Your task to perform on an android device: Search for "bose soundlink" on bestbuy.com, select the first entry, and add it to the cart. Image 0: 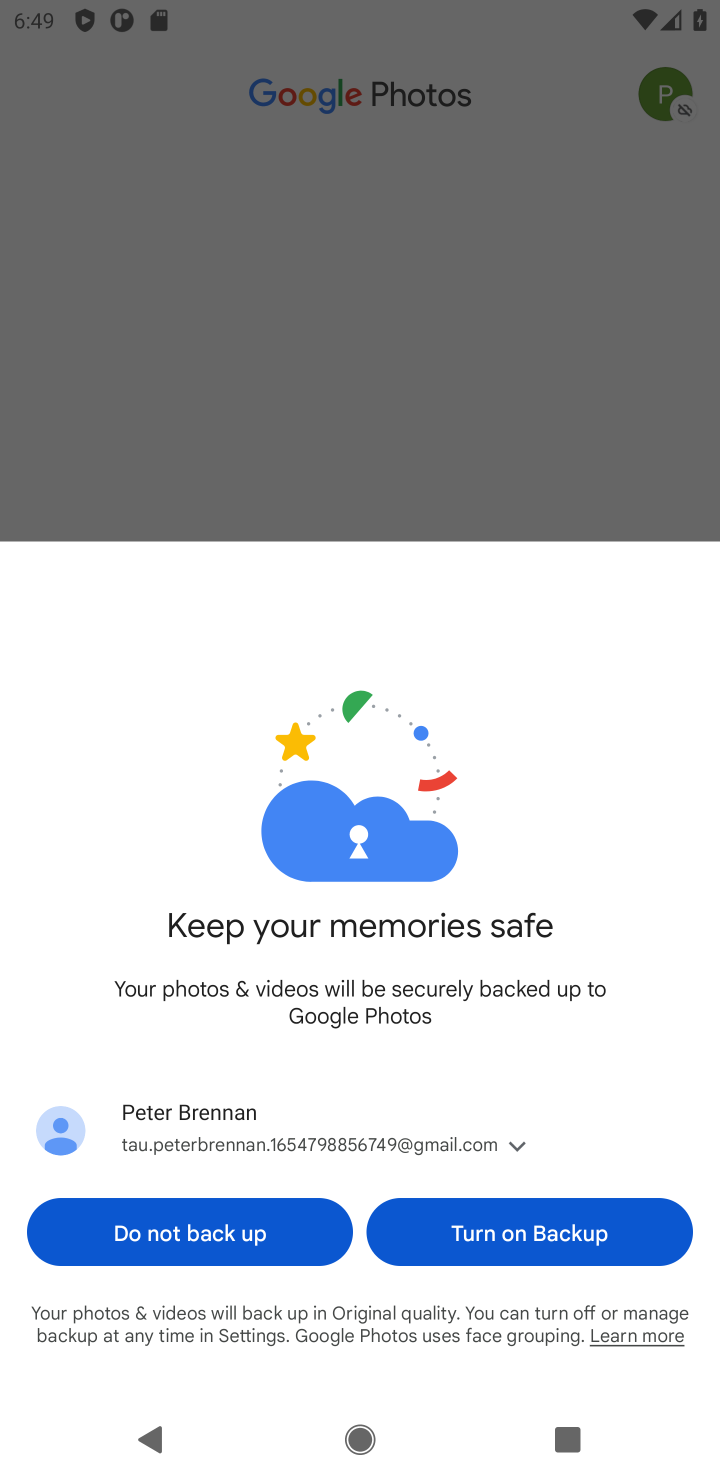
Step 0: press home button
Your task to perform on an android device: Search for "bose soundlink" on bestbuy.com, select the first entry, and add it to the cart. Image 1: 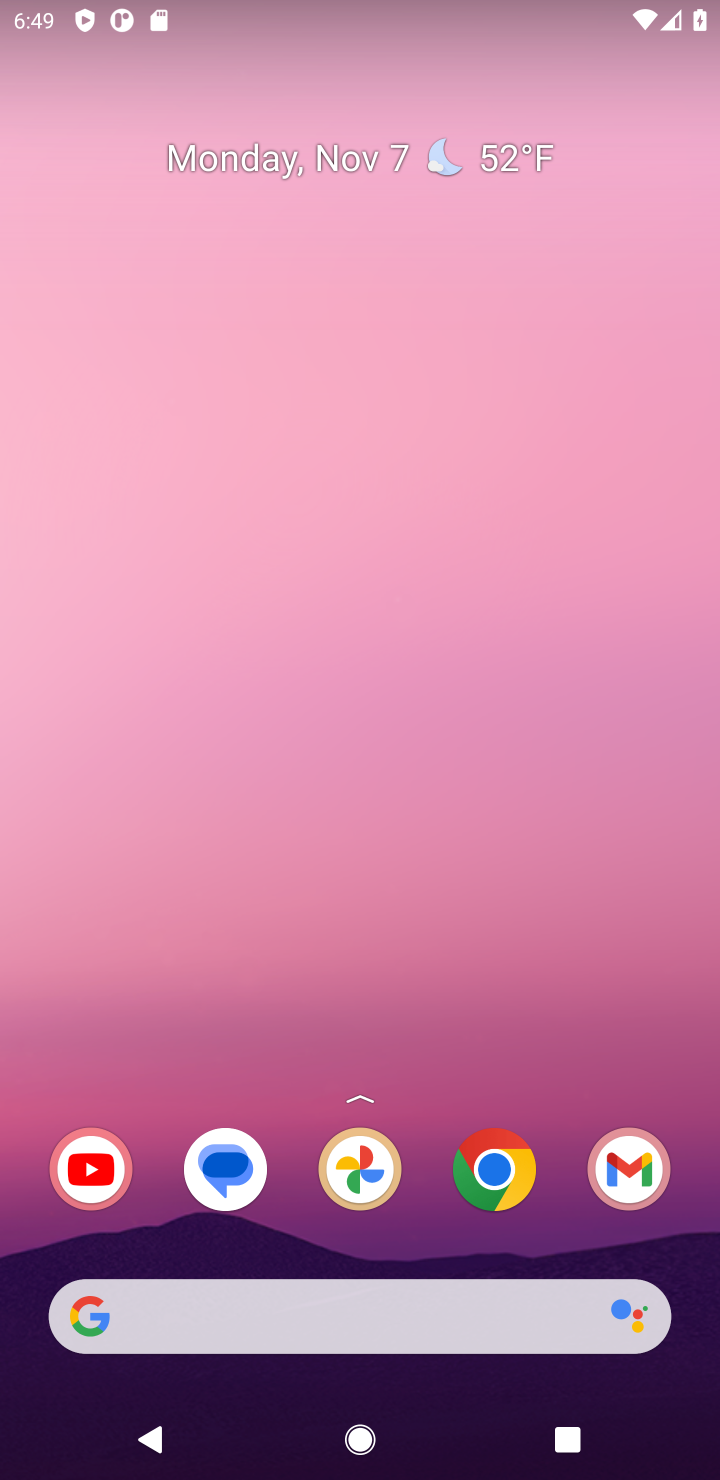
Step 1: click (482, 1191)
Your task to perform on an android device: Search for "bose soundlink" on bestbuy.com, select the first entry, and add it to the cart. Image 2: 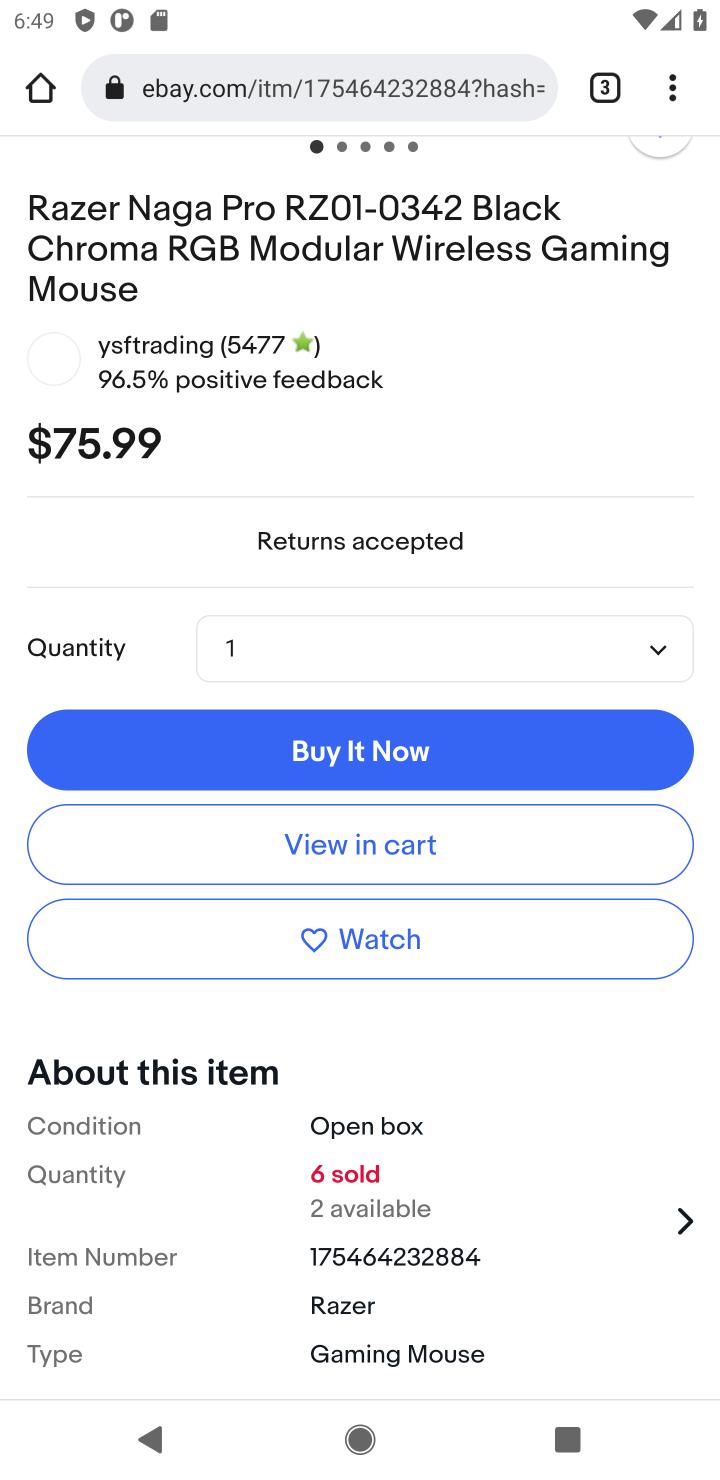
Step 2: click (601, 80)
Your task to perform on an android device: Search for "bose soundlink" on bestbuy.com, select the first entry, and add it to the cart. Image 3: 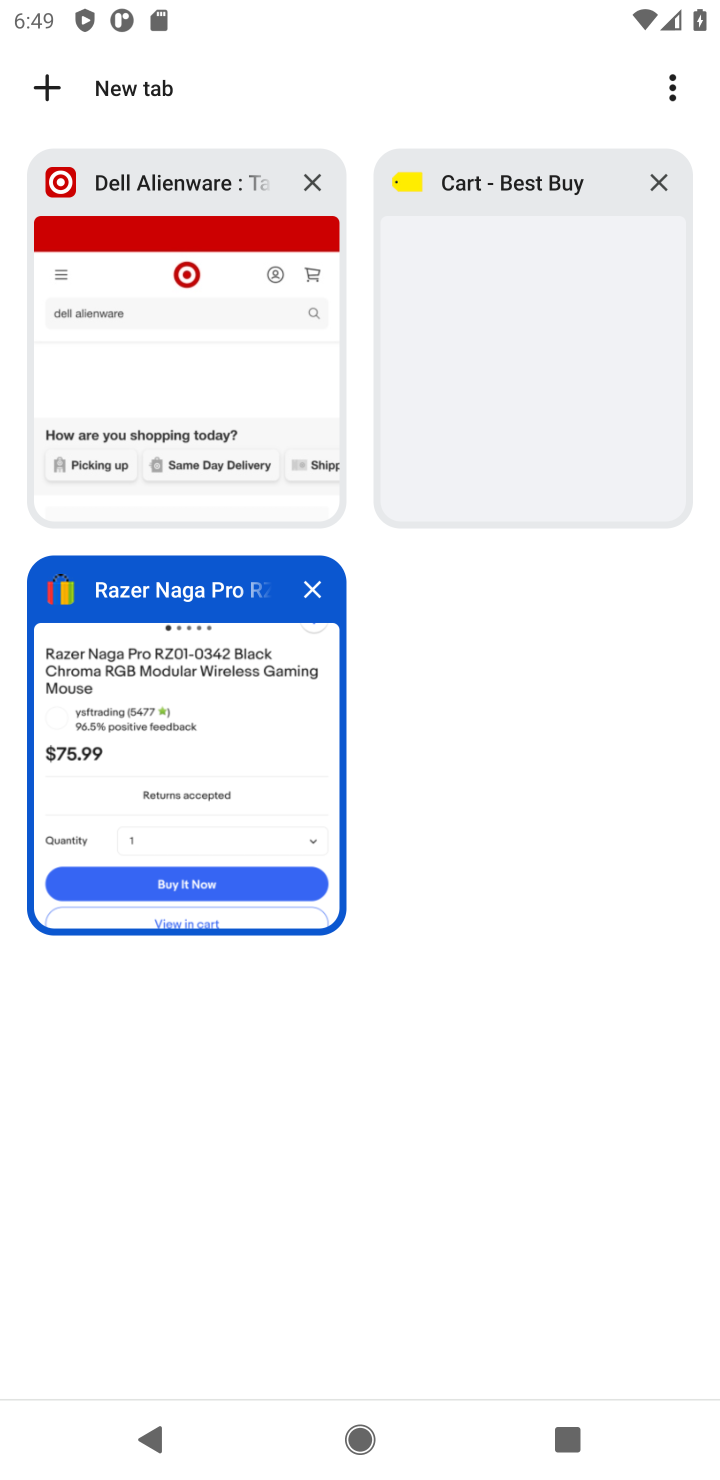
Step 3: click (529, 352)
Your task to perform on an android device: Search for "bose soundlink" on bestbuy.com, select the first entry, and add it to the cart. Image 4: 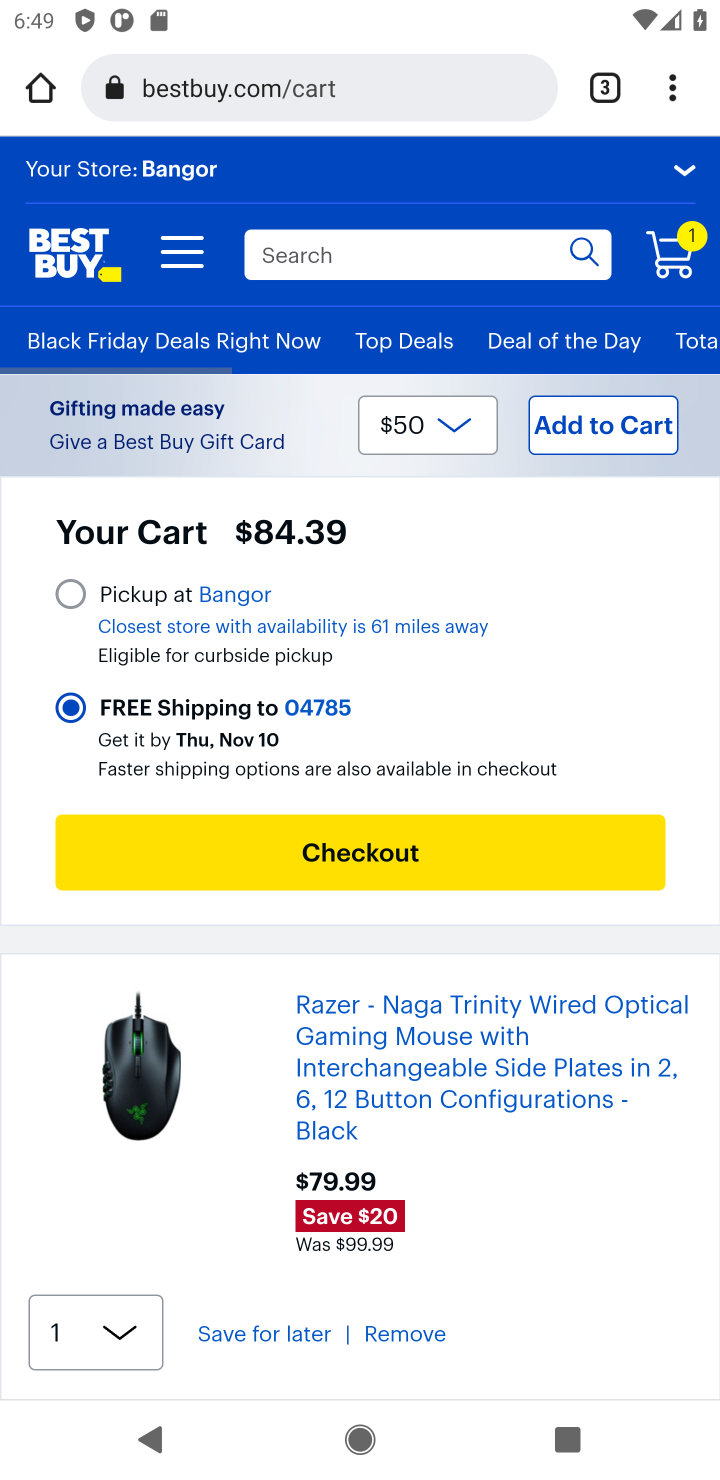
Step 4: click (341, 248)
Your task to perform on an android device: Search for "bose soundlink" on bestbuy.com, select the first entry, and add it to the cart. Image 5: 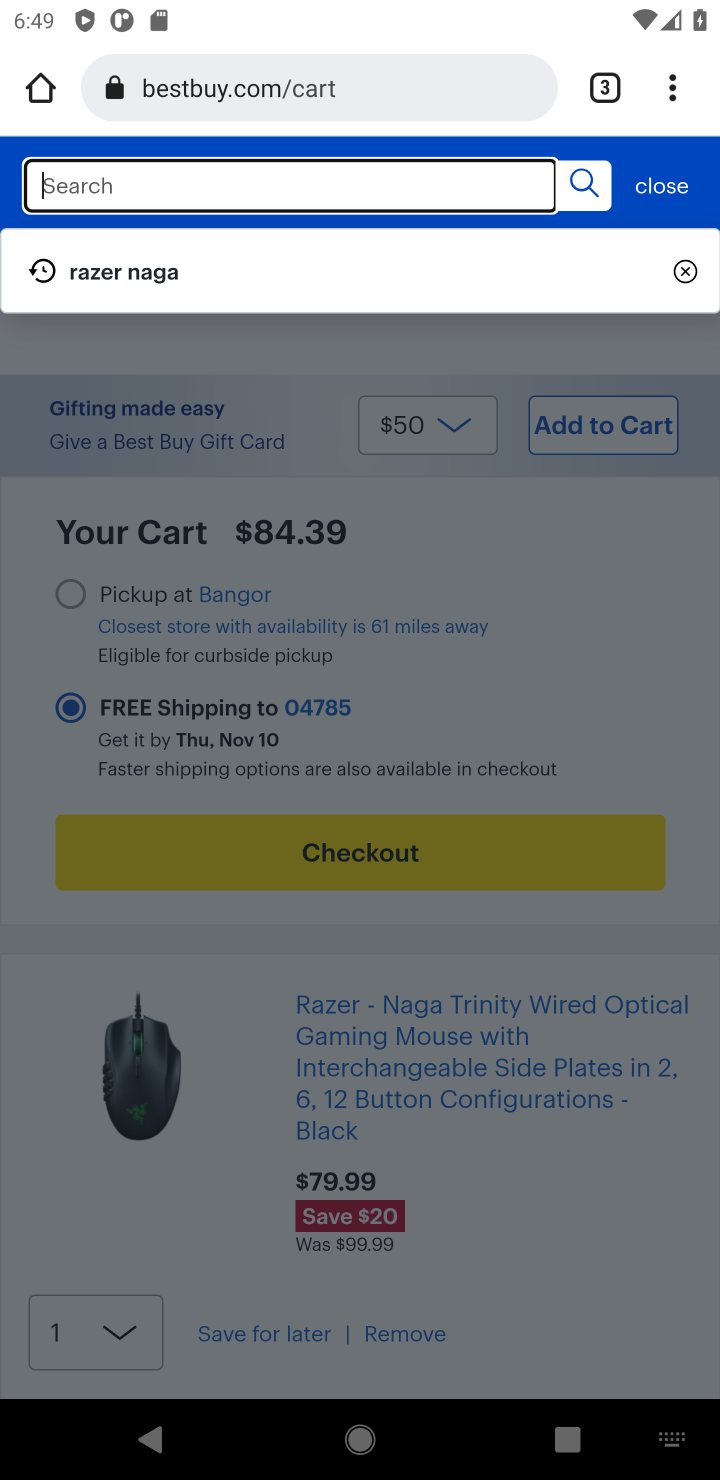
Step 5: type "bose soundlink"
Your task to perform on an android device: Search for "bose soundlink" on bestbuy.com, select the first entry, and add it to the cart. Image 6: 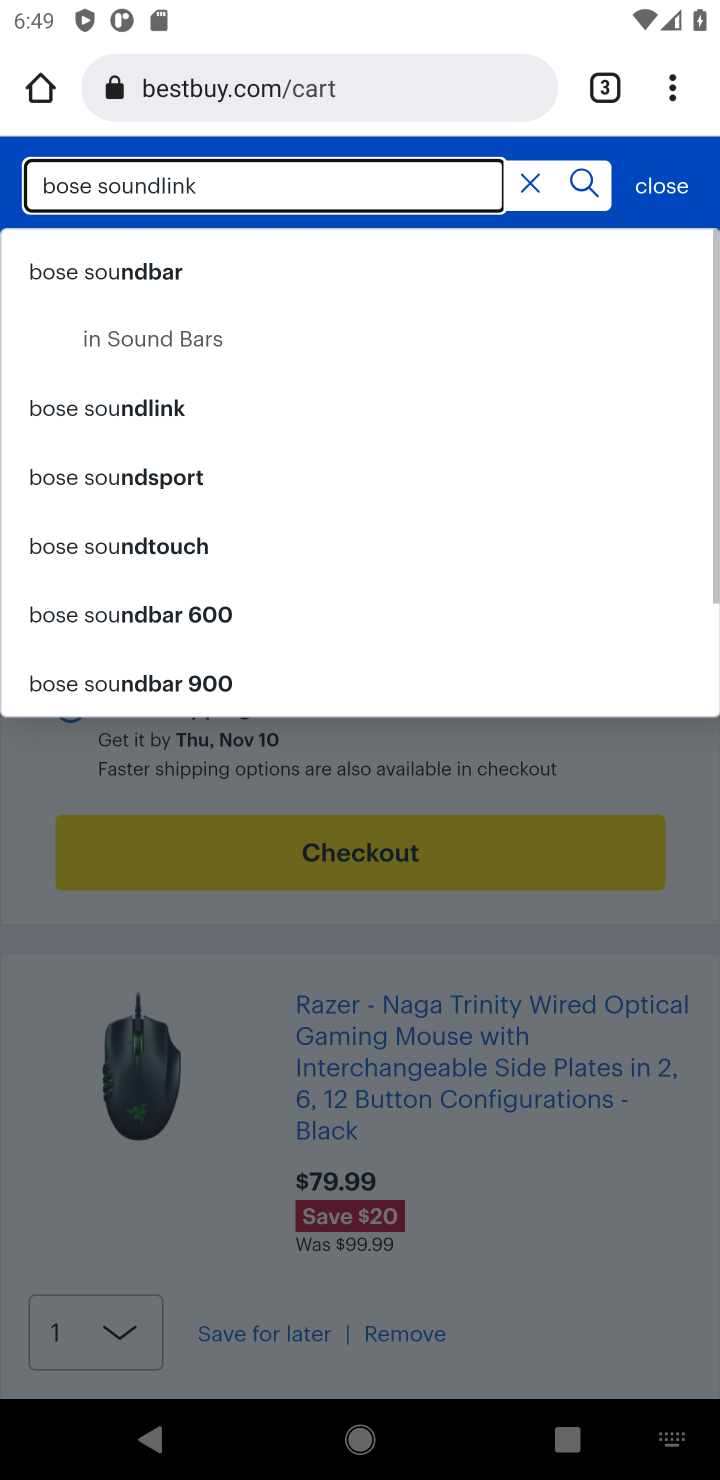
Step 6: click (579, 174)
Your task to perform on an android device: Search for "bose soundlink" on bestbuy.com, select the first entry, and add it to the cart. Image 7: 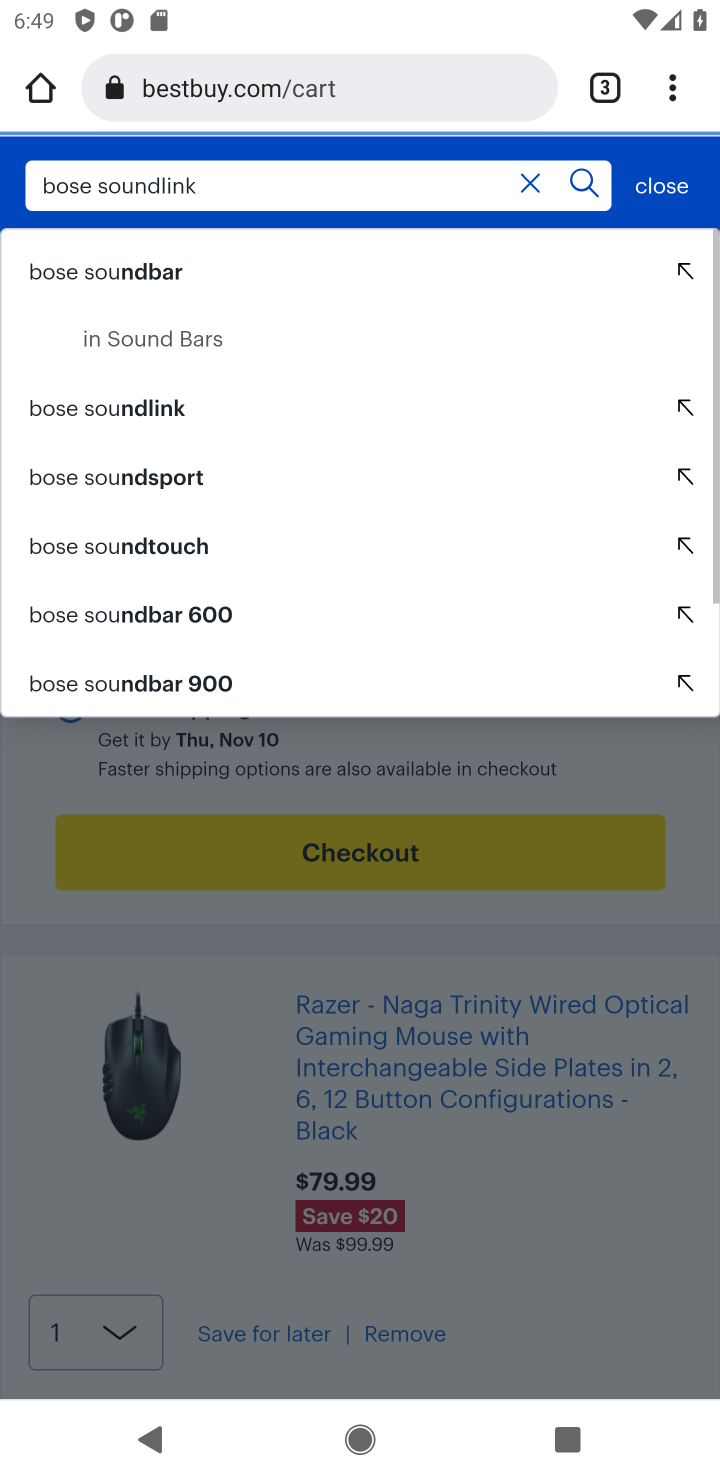
Step 7: click (96, 269)
Your task to perform on an android device: Search for "bose soundlink" on bestbuy.com, select the first entry, and add it to the cart. Image 8: 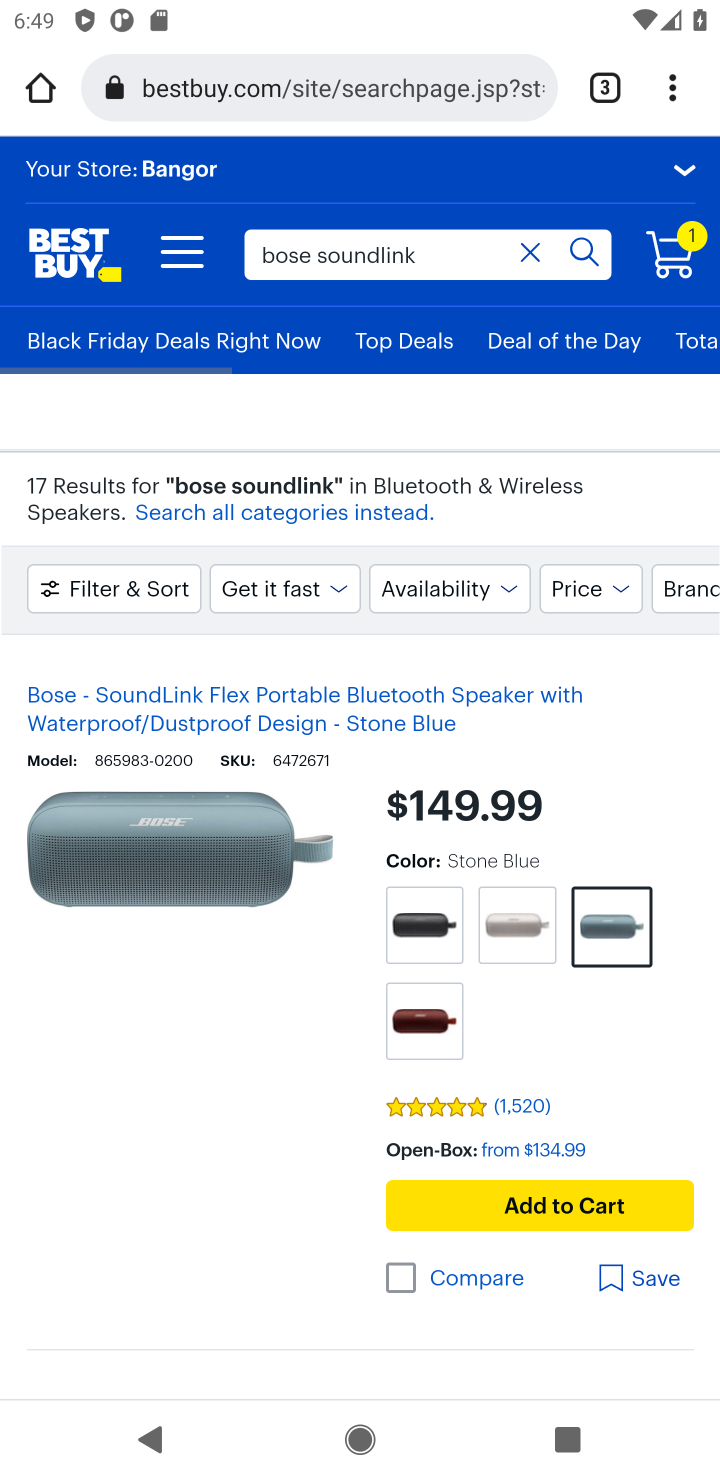
Step 8: click (550, 1199)
Your task to perform on an android device: Search for "bose soundlink" on bestbuy.com, select the first entry, and add it to the cart. Image 9: 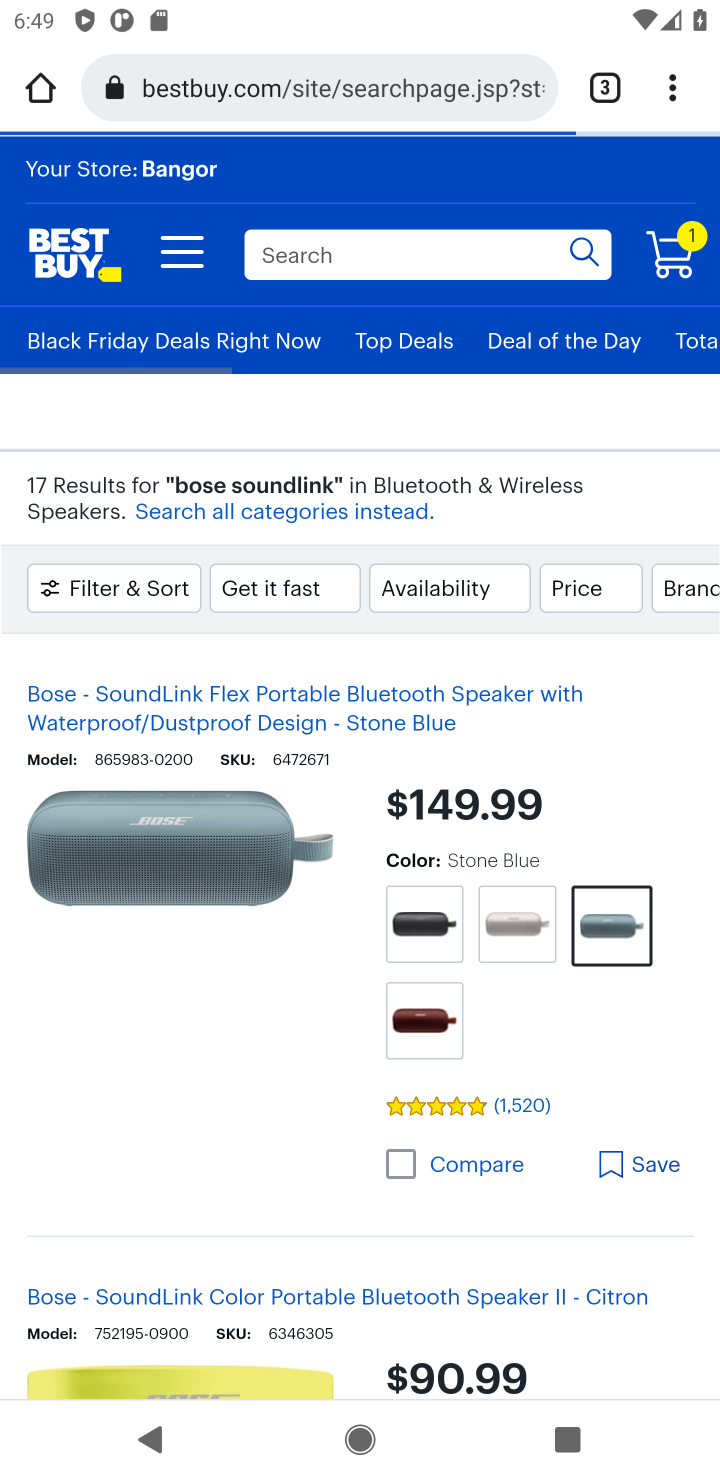
Step 9: click (520, 1280)
Your task to perform on an android device: Search for "bose soundlink" on bestbuy.com, select the first entry, and add it to the cart. Image 10: 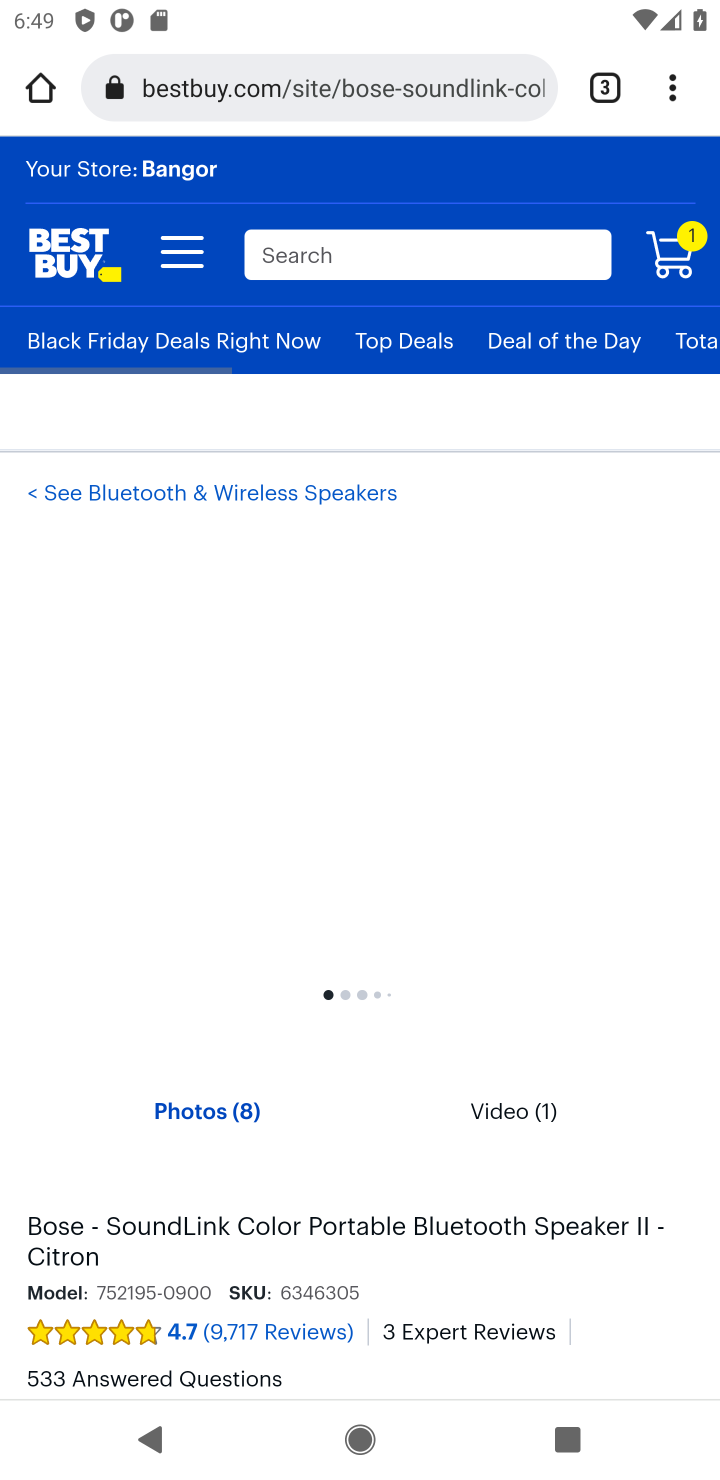
Step 10: drag from (534, 1271) to (604, 510)
Your task to perform on an android device: Search for "bose soundlink" on bestbuy.com, select the first entry, and add it to the cart. Image 11: 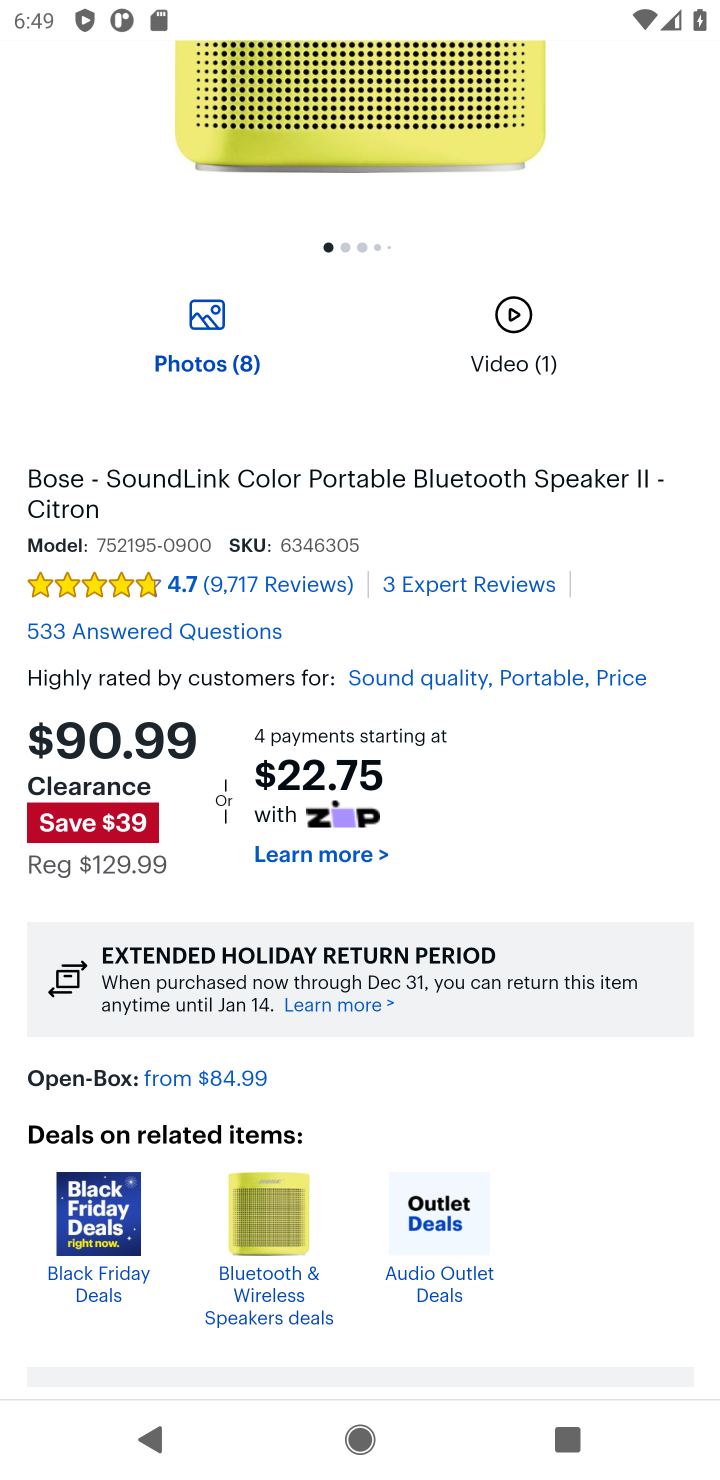
Step 11: drag from (510, 1125) to (703, 74)
Your task to perform on an android device: Search for "bose soundlink" on bestbuy.com, select the first entry, and add it to the cart. Image 12: 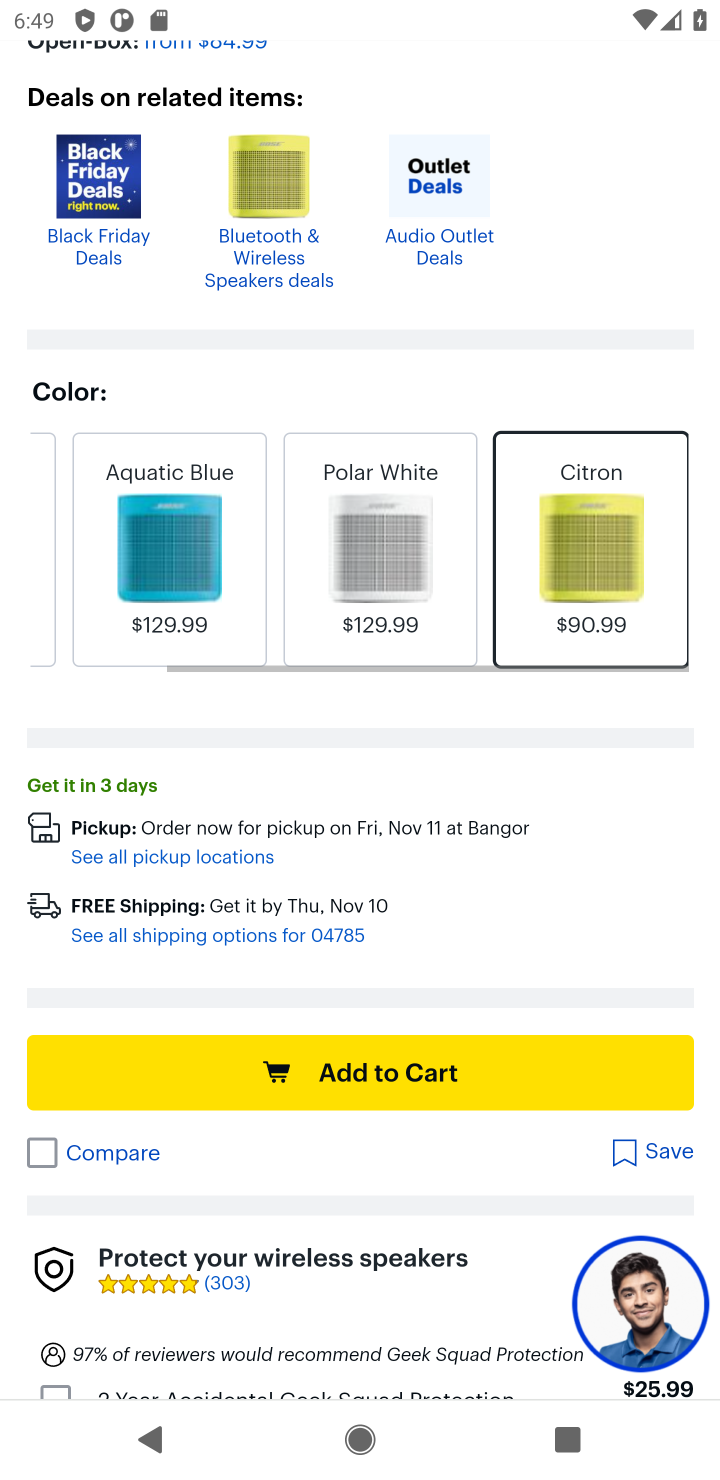
Step 12: click (414, 1052)
Your task to perform on an android device: Search for "bose soundlink" on bestbuy.com, select the first entry, and add it to the cart. Image 13: 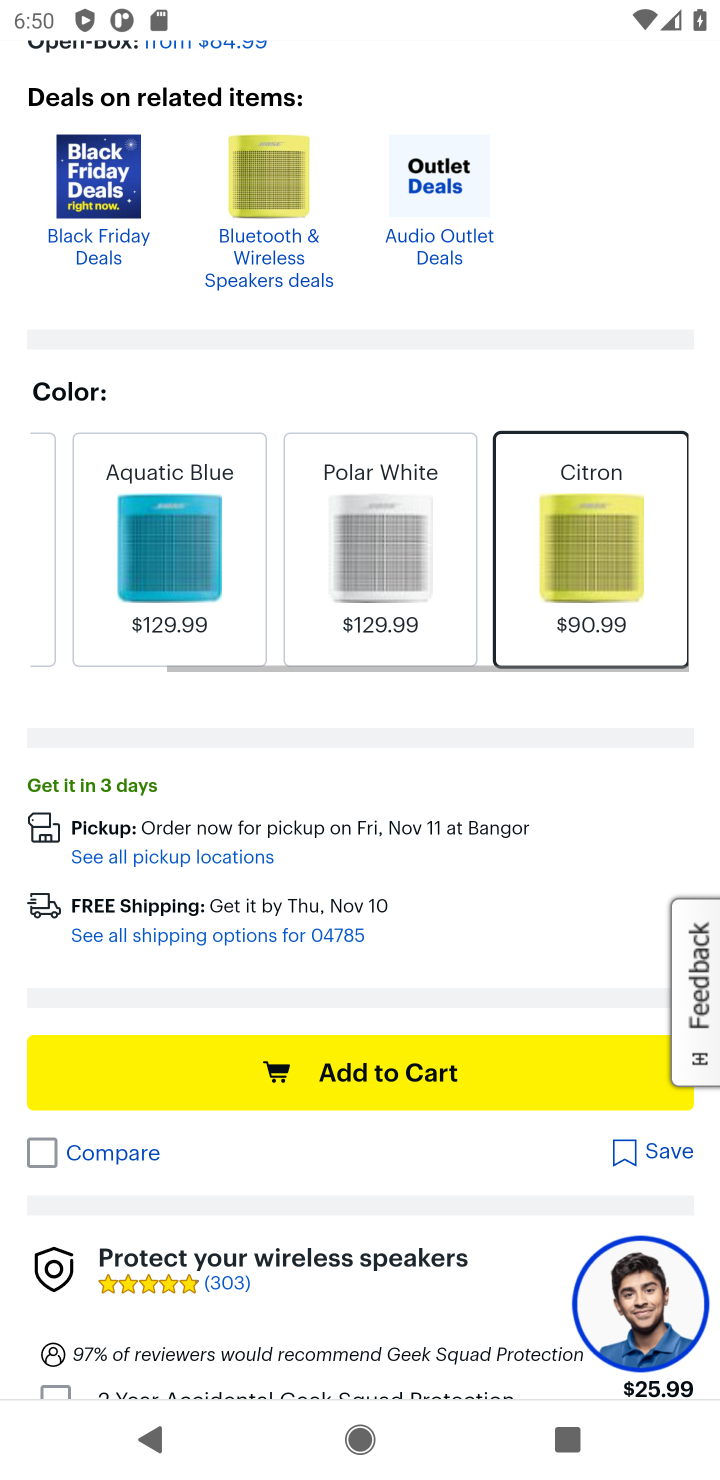
Step 13: task complete